Your task to perform on an android device: Open Android settings Image 0: 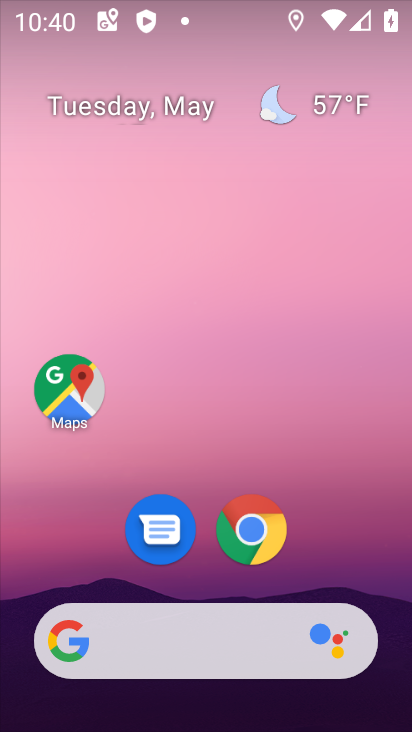
Step 0: drag from (321, 542) to (231, 10)
Your task to perform on an android device: Open Android settings Image 1: 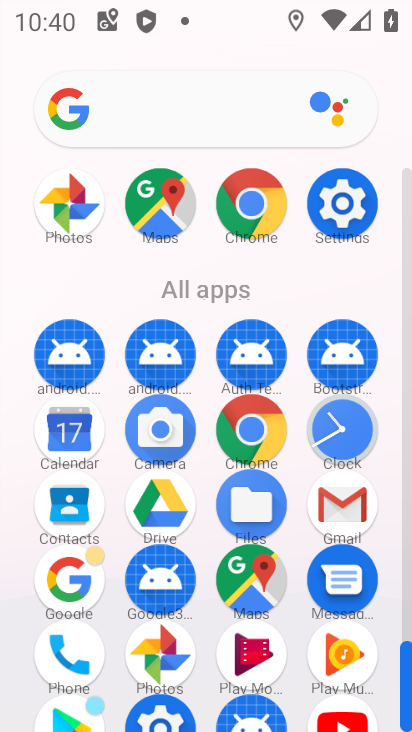
Step 1: click (342, 208)
Your task to perform on an android device: Open Android settings Image 2: 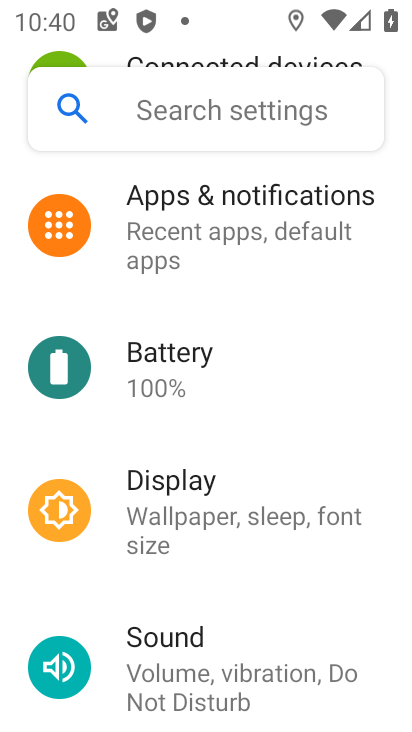
Step 2: drag from (80, 579) to (123, 20)
Your task to perform on an android device: Open Android settings Image 3: 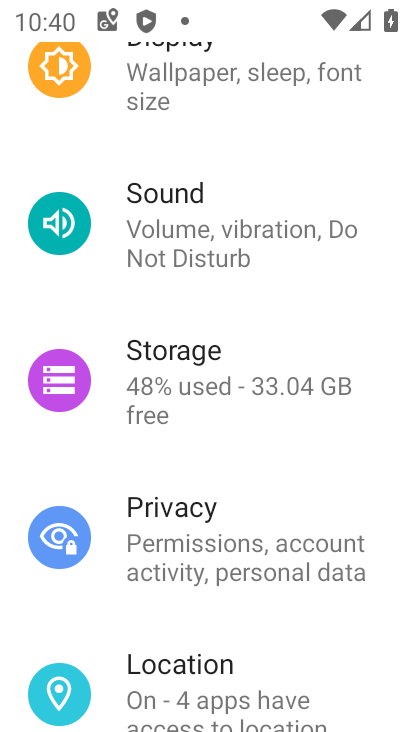
Step 3: drag from (84, 615) to (282, 10)
Your task to perform on an android device: Open Android settings Image 4: 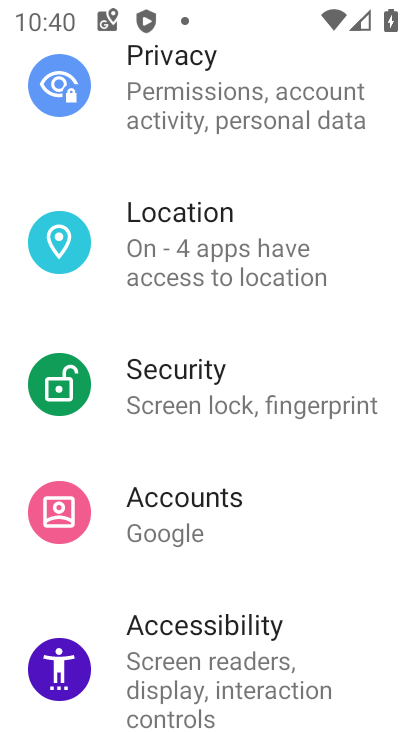
Step 4: drag from (100, 616) to (273, 11)
Your task to perform on an android device: Open Android settings Image 5: 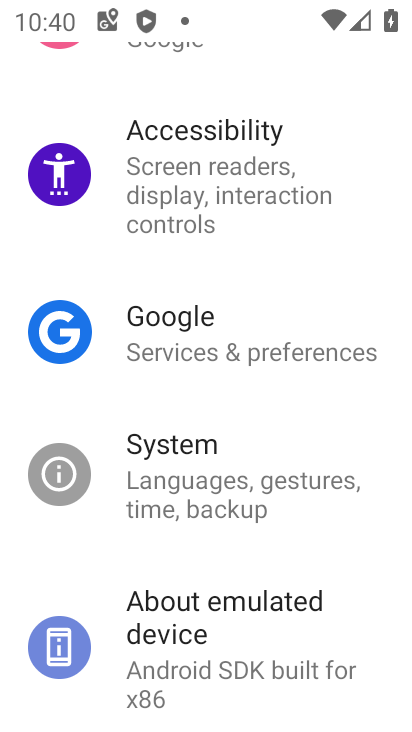
Step 5: drag from (218, 638) to (246, 150)
Your task to perform on an android device: Open Android settings Image 6: 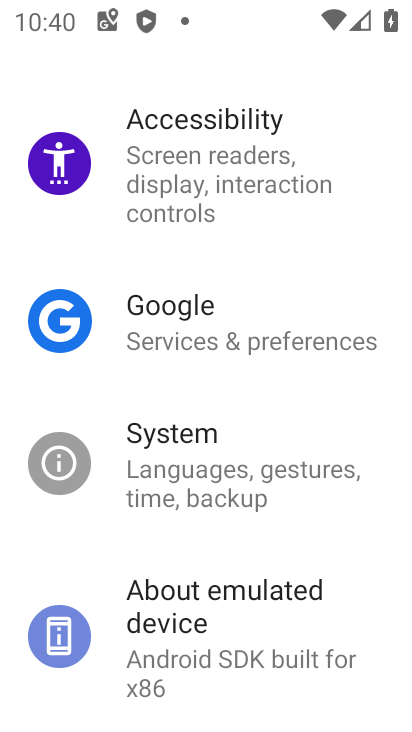
Step 6: click (44, 641)
Your task to perform on an android device: Open Android settings Image 7: 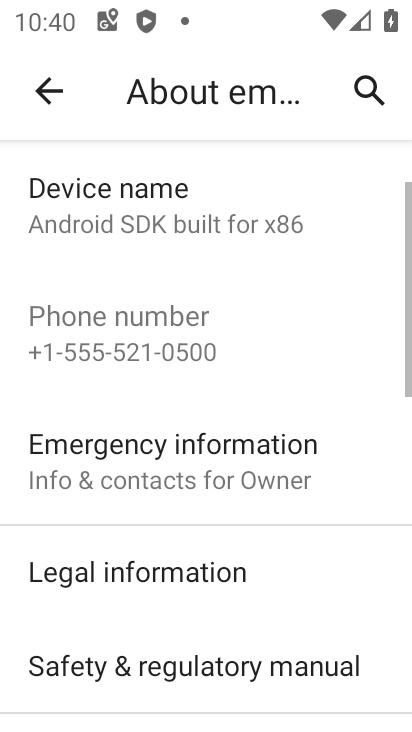
Step 7: drag from (44, 641) to (208, 19)
Your task to perform on an android device: Open Android settings Image 8: 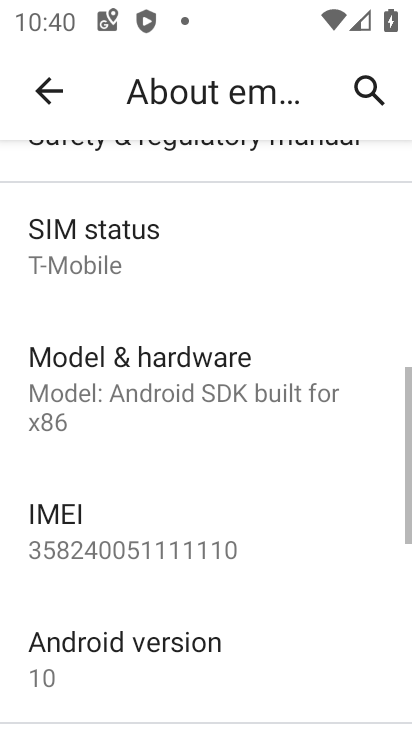
Step 8: click (76, 656)
Your task to perform on an android device: Open Android settings Image 9: 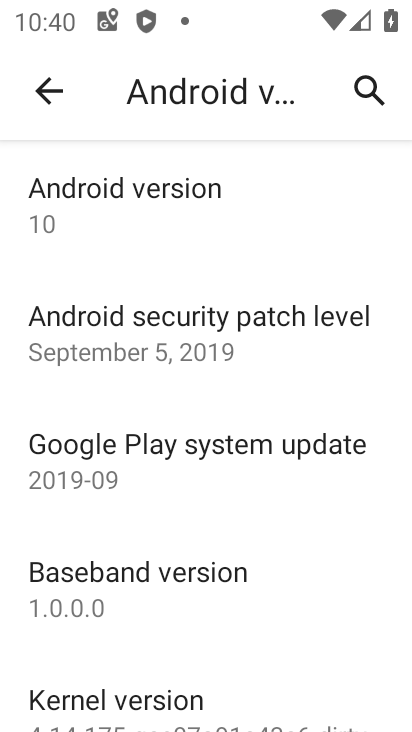
Step 9: task complete